Your task to perform on an android device: Do I have any events this weekend? Image 0: 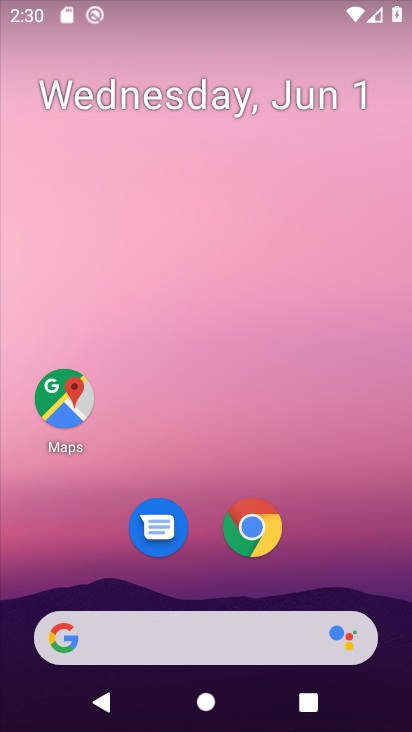
Step 0: drag from (208, 568) to (283, 153)
Your task to perform on an android device: Do I have any events this weekend? Image 1: 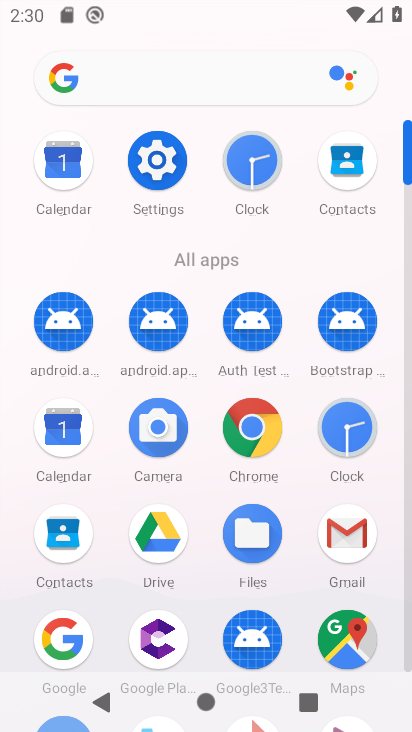
Step 1: click (61, 440)
Your task to perform on an android device: Do I have any events this weekend? Image 2: 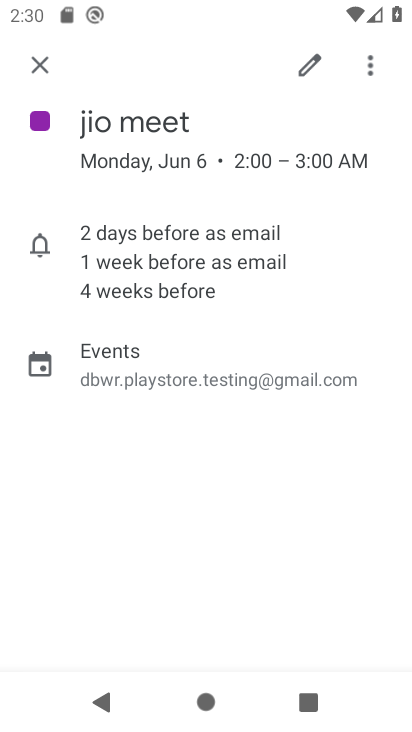
Step 2: click (40, 66)
Your task to perform on an android device: Do I have any events this weekend? Image 3: 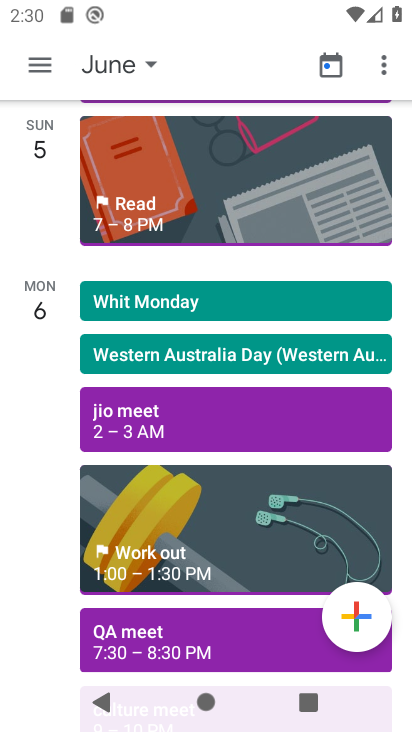
Step 3: click (39, 67)
Your task to perform on an android device: Do I have any events this weekend? Image 4: 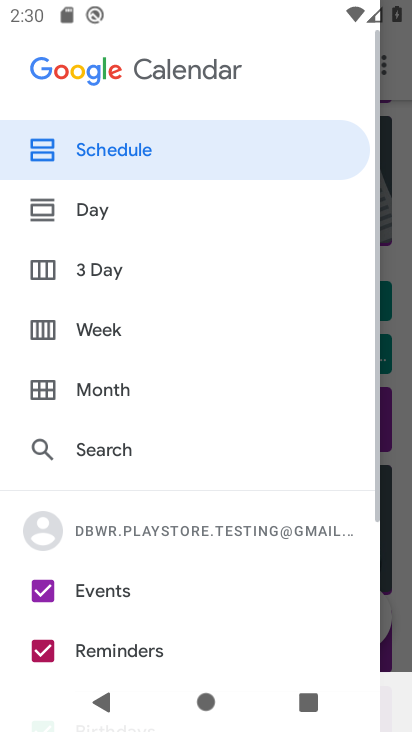
Step 4: drag from (108, 525) to (146, 253)
Your task to perform on an android device: Do I have any events this weekend? Image 5: 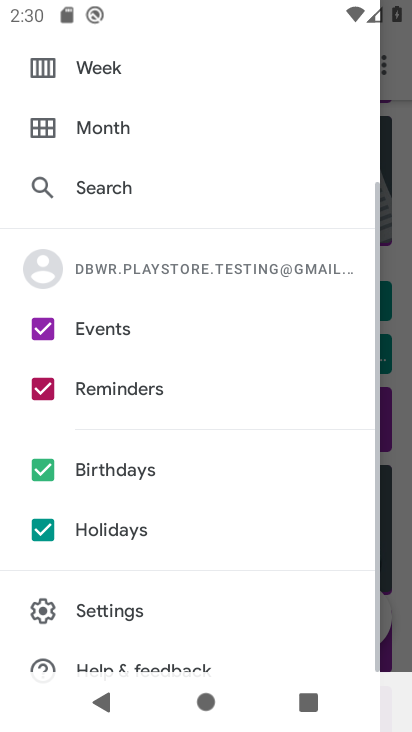
Step 5: click (49, 390)
Your task to perform on an android device: Do I have any events this weekend? Image 6: 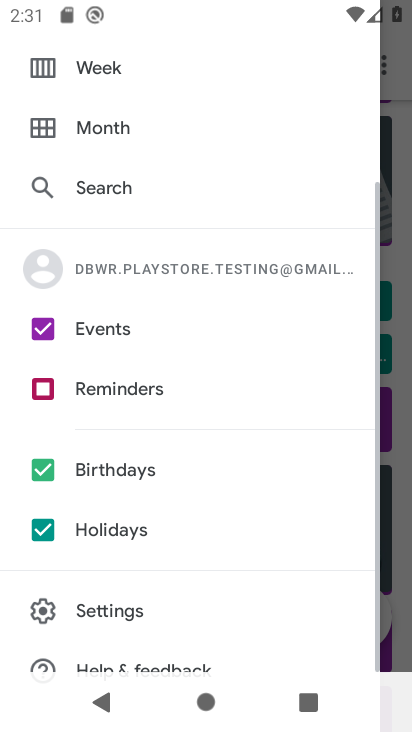
Step 6: click (77, 455)
Your task to perform on an android device: Do I have any events this weekend? Image 7: 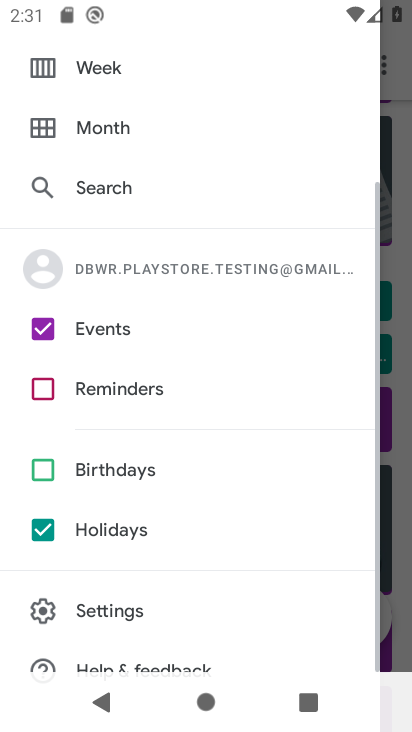
Step 7: click (71, 521)
Your task to perform on an android device: Do I have any events this weekend? Image 8: 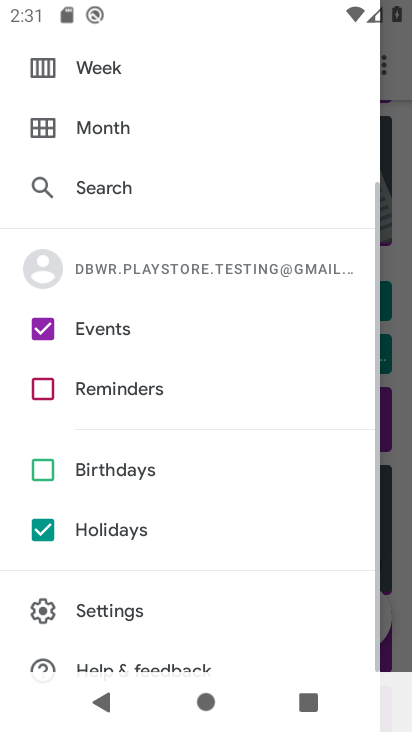
Step 8: drag from (199, 222) to (184, 477)
Your task to perform on an android device: Do I have any events this weekend? Image 9: 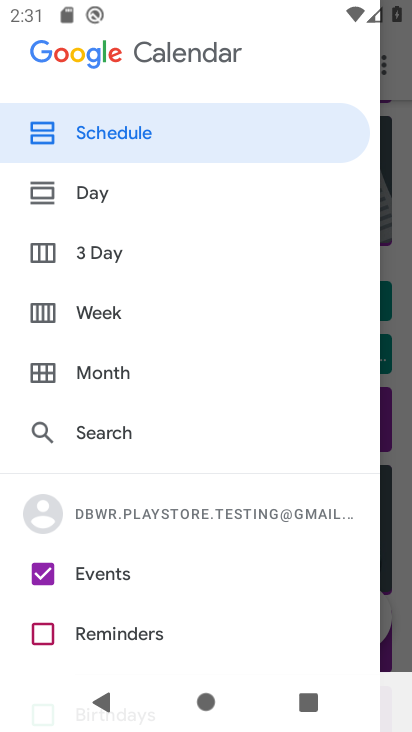
Step 9: click (91, 319)
Your task to perform on an android device: Do I have any events this weekend? Image 10: 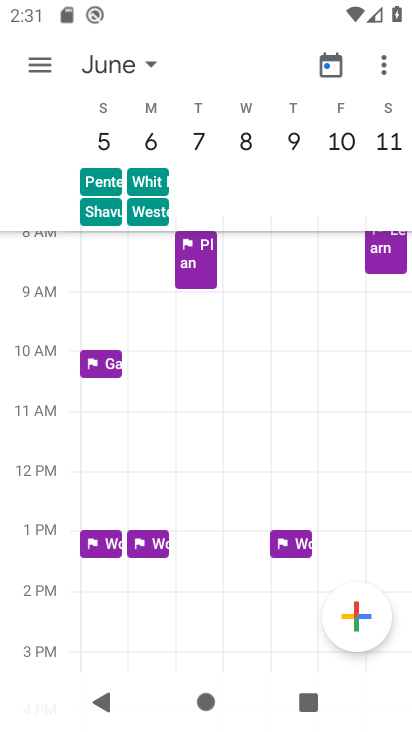
Step 10: drag from (132, 180) to (333, 151)
Your task to perform on an android device: Do I have any events this weekend? Image 11: 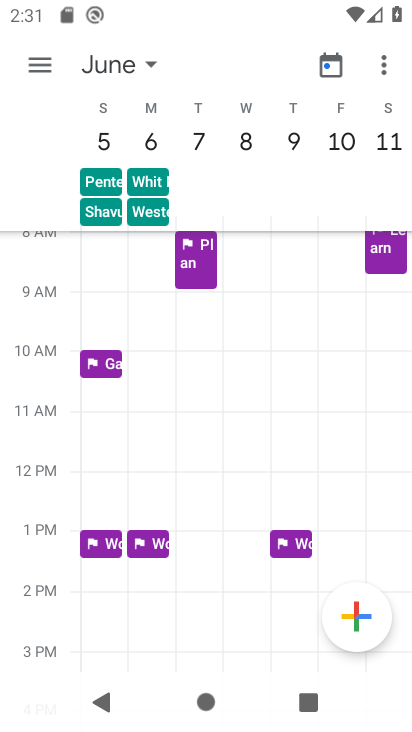
Step 11: click (44, 48)
Your task to perform on an android device: Do I have any events this weekend? Image 12: 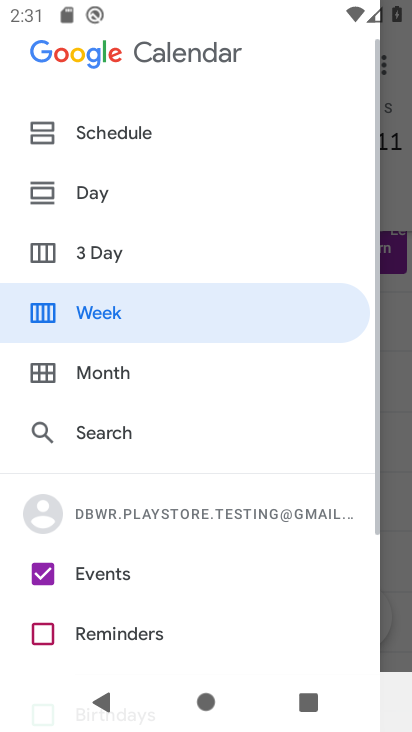
Step 12: drag from (109, 533) to (138, 370)
Your task to perform on an android device: Do I have any events this weekend? Image 13: 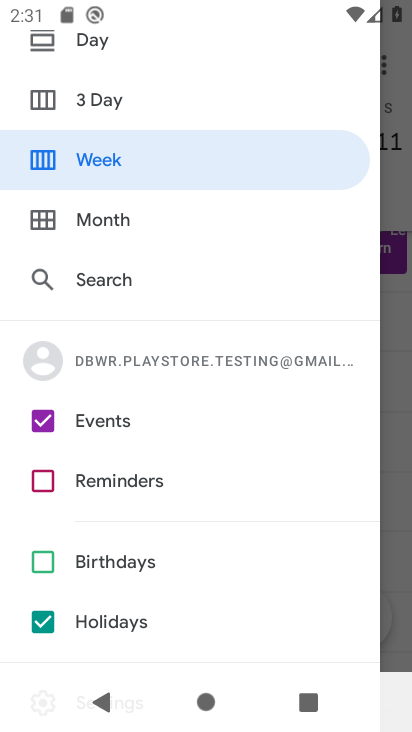
Step 13: click (107, 627)
Your task to perform on an android device: Do I have any events this weekend? Image 14: 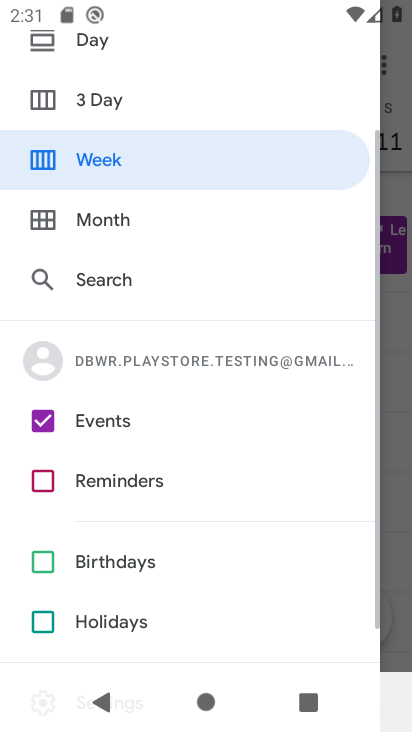
Step 14: click (121, 154)
Your task to perform on an android device: Do I have any events this weekend? Image 15: 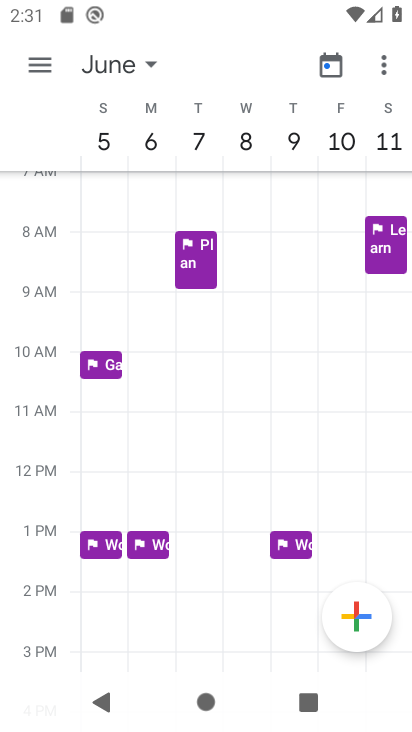
Step 15: task complete